Your task to perform on an android device: show emergency info Image 0: 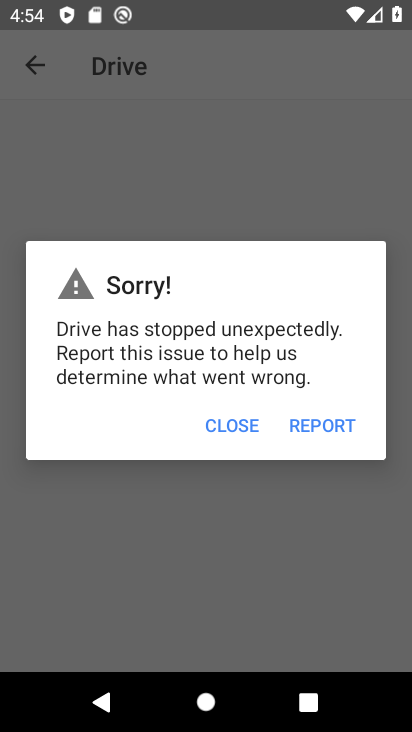
Step 0: press home button
Your task to perform on an android device: show emergency info Image 1: 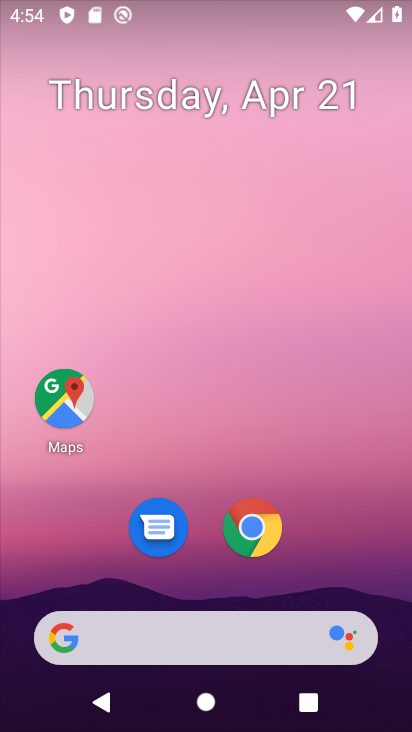
Step 1: click (372, 141)
Your task to perform on an android device: show emergency info Image 2: 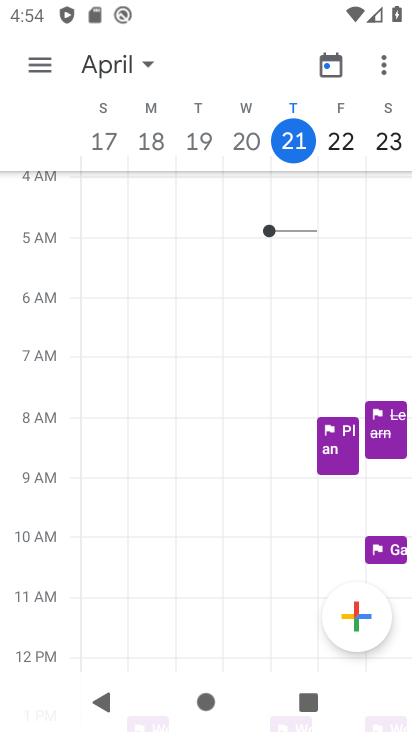
Step 2: press home button
Your task to perform on an android device: show emergency info Image 3: 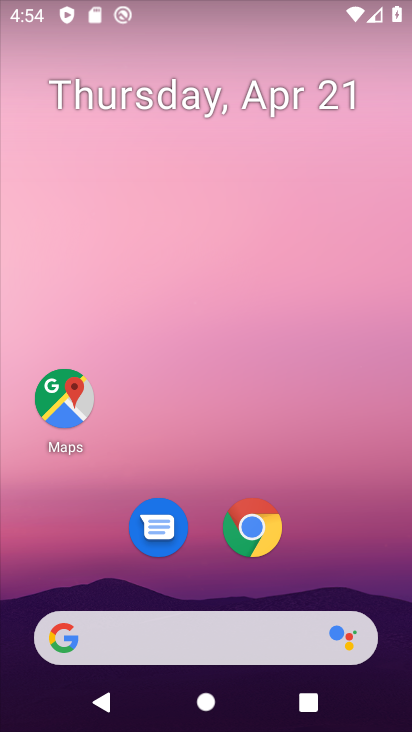
Step 3: drag from (356, 248) to (334, 93)
Your task to perform on an android device: show emergency info Image 4: 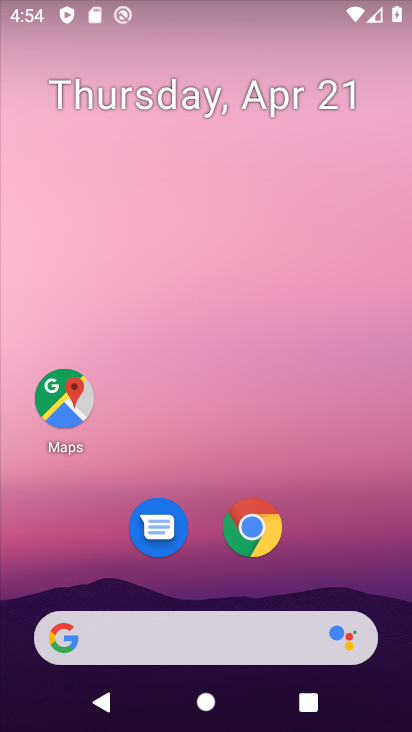
Step 4: drag from (396, 627) to (346, 83)
Your task to perform on an android device: show emergency info Image 5: 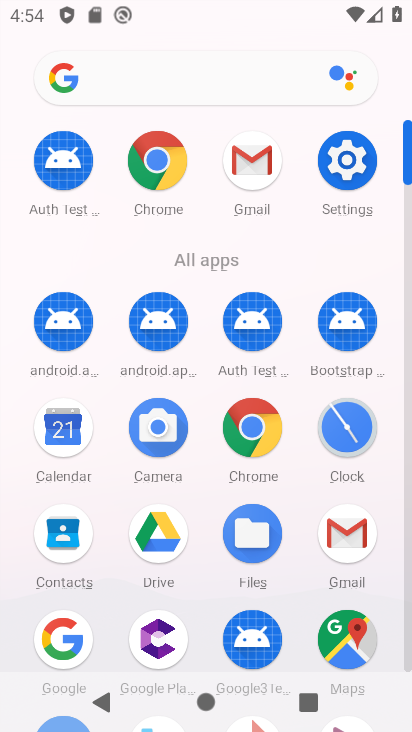
Step 5: click (338, 155)
Your task to perform on an android device: show emergency info Image 6: 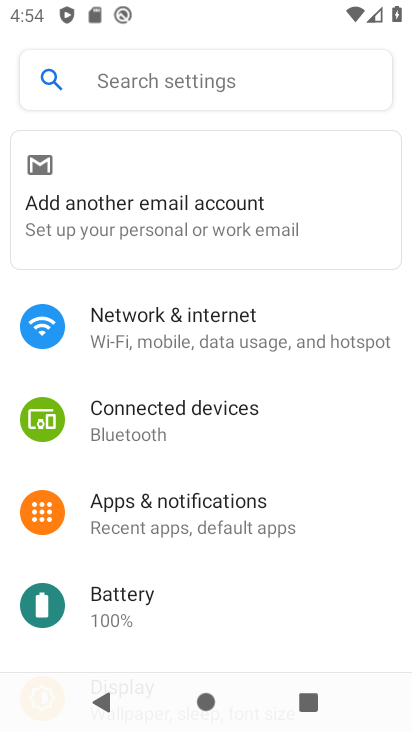
Step 6: drag from (362, 637) to (362, 125)
Your task to perform on an android device: show emergency info Image 7: 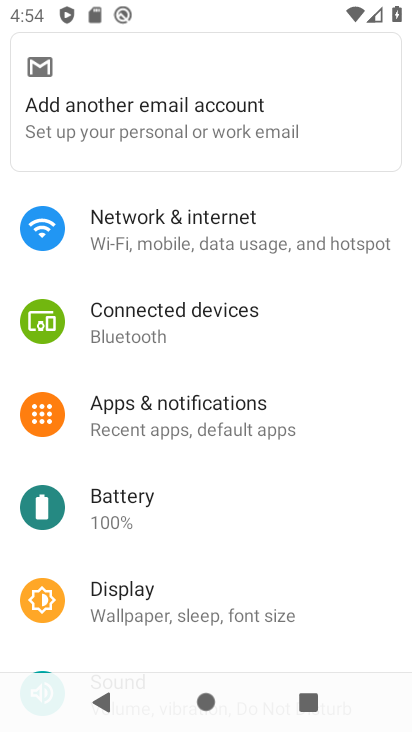
Step 7: drag from (359, 415) to (357, 232)
Your task to perform on an android device: show emergency info Image 8: 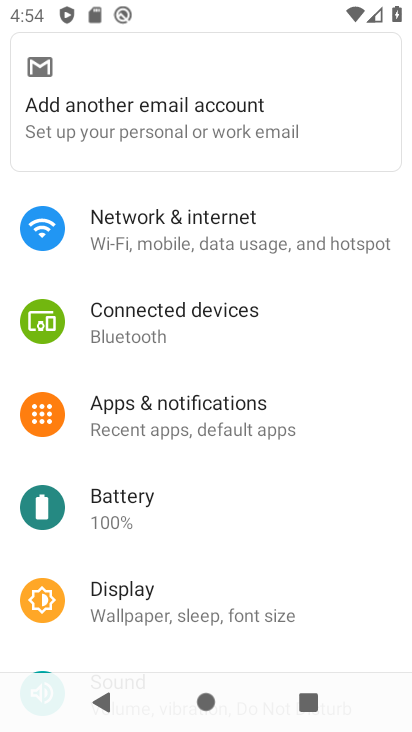
Step 8: drag from (365, 531) to (351, 235)
Your task to perform on an android device: show emergency info Image 9: 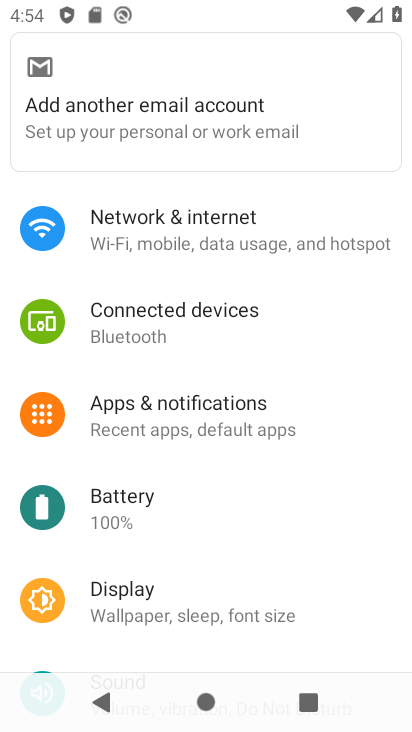
Step 9: drag from (347, 651) to (358, 257)
Your task to perform on an android device: show emergency info Image 10: 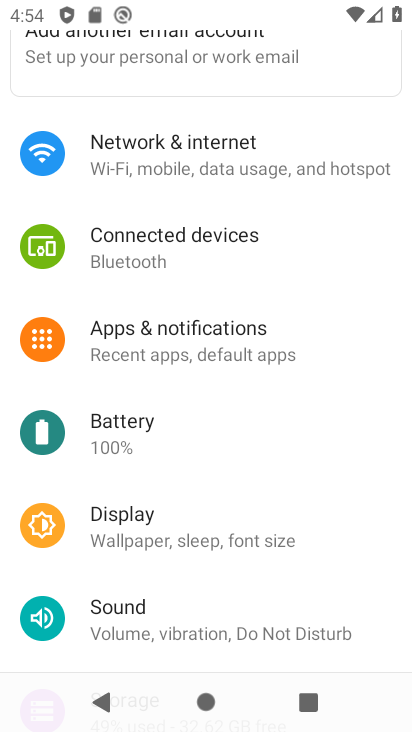
Step 10: drag from (362, 617) to (359, 328)
Your task to perform on an android device: show emergency info Image 11: 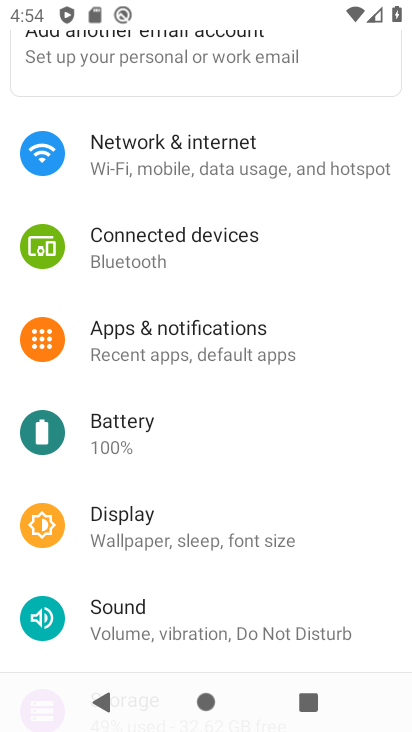
Step 11: drag from (361, 595) to (345, 270)
Your task to perform on an android device: show emergency info Image 12: 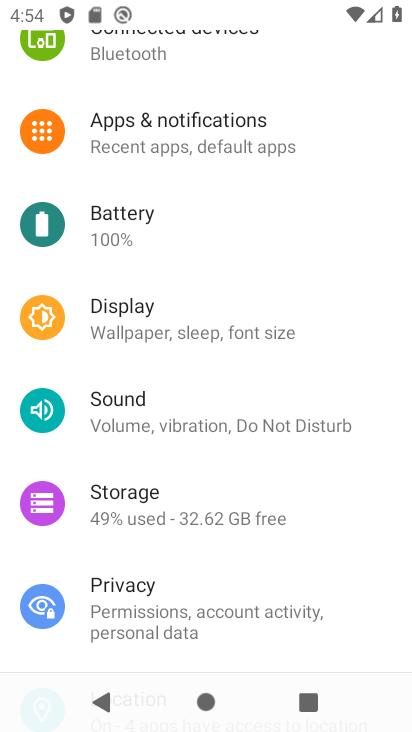
Step 12: drag from (332, 409) to (318, 311)
Your task to perform on an android device: show emergency info Image 13: 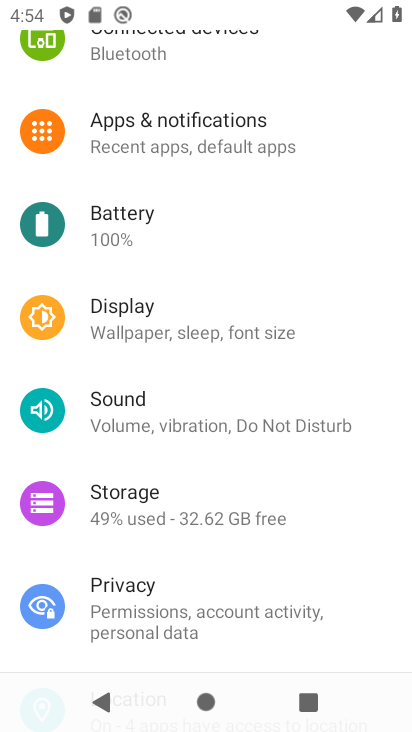
Step 13: drag from (374, 466) to (371, 153)
Your task to perform on an android device: show emergency info Image 14: 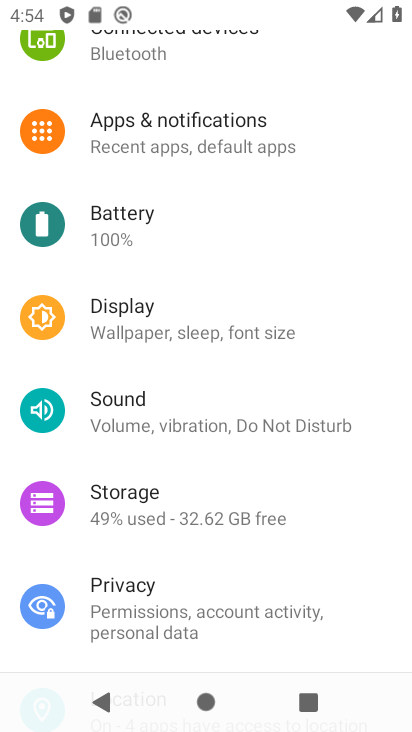
Step 14: drag from (355, 617) to (339, 219)
Your task to perform on an android device: show emergency info Image 15: 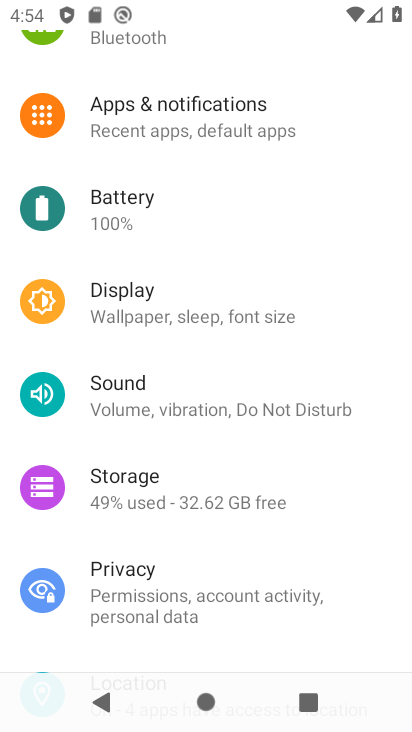
Step 15: drag from (380, 630) to (376, 303)
Your task to perform on an android device: show emergency info Image 16: 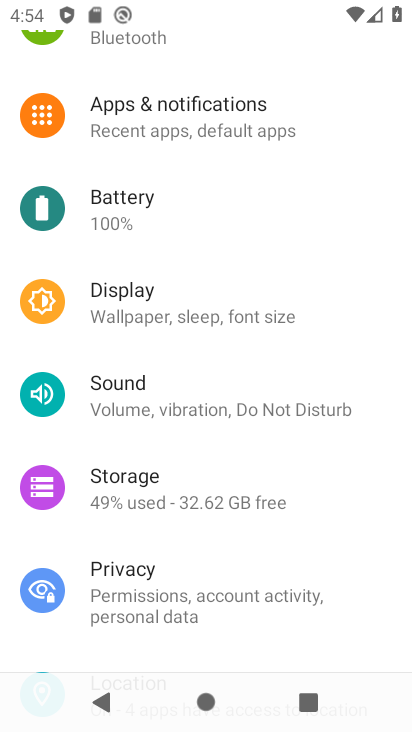
Step 16: drag from (365, 633) to (377, 214)
Your task to perform on an android device: show emergency info Image 17: 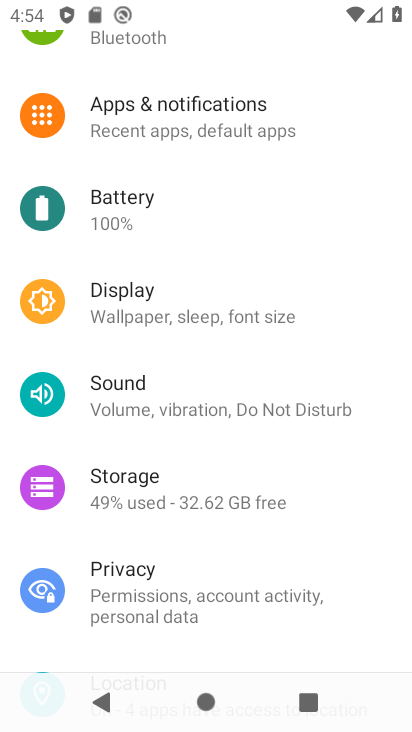
Step 17: drag from (352, 309) to (343, 95)
Your task to perform on an android device: show emergency info Image 18: 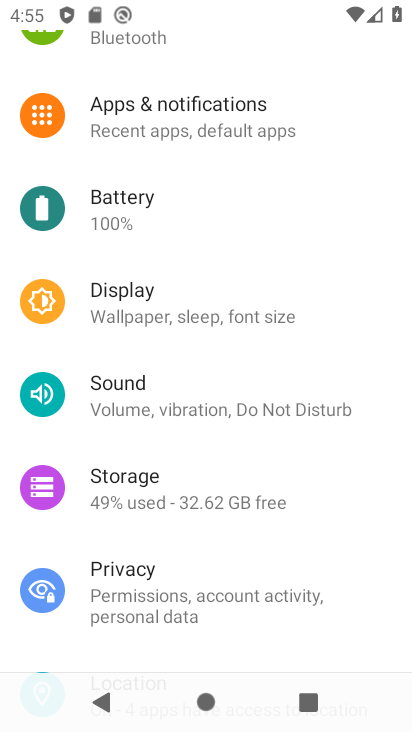
Step 18: drag from (372, 386) to (360, 250)
Your task to perform on an android device: show emergency info Image 19: 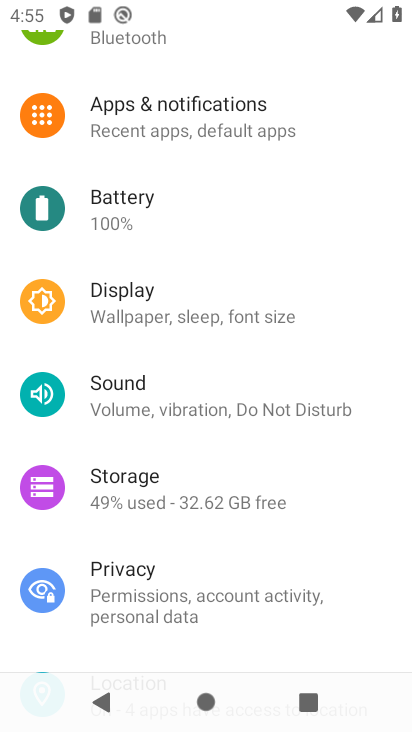
Step 19: drag from (375, 320) to (359, 148)
Your task to perform on an android device: show emergency info Image 20: 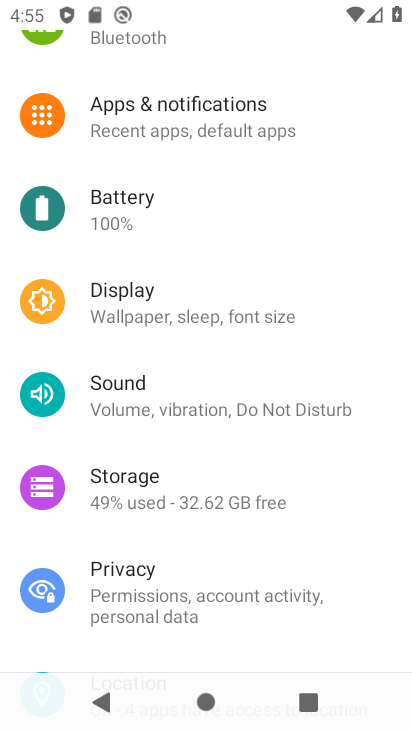
Step 20: click (368, 214)
Your task to perform on an android device: show emergency info Image 21: 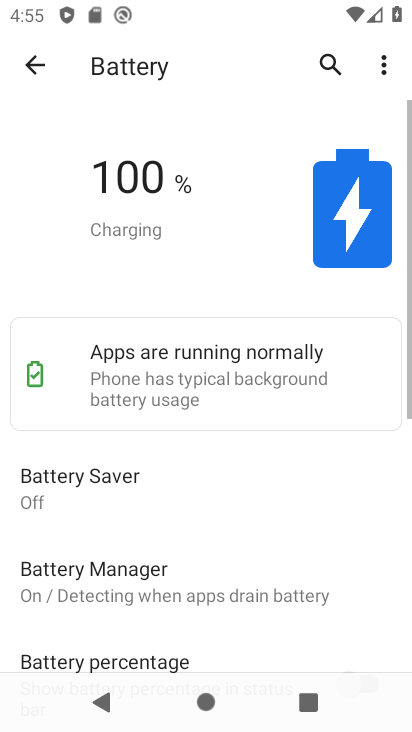
Step 21: drag from (375, 308) to (368, 154)
Your task to perform on an android device: show emergency info Image 22: 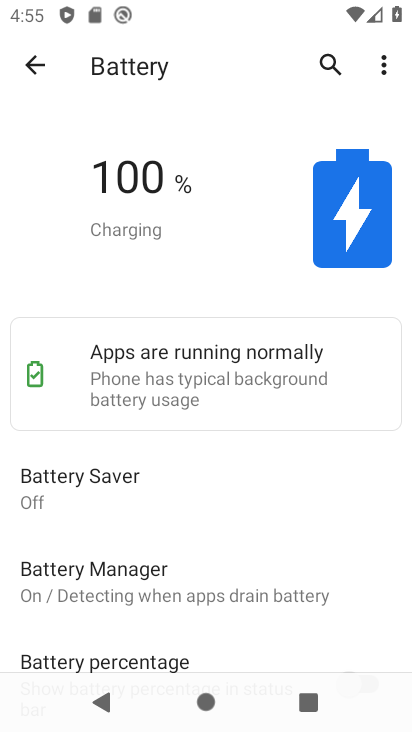
Step 22: click (27, 63)
Your task to perform on an android device: show emergency info Image 23: 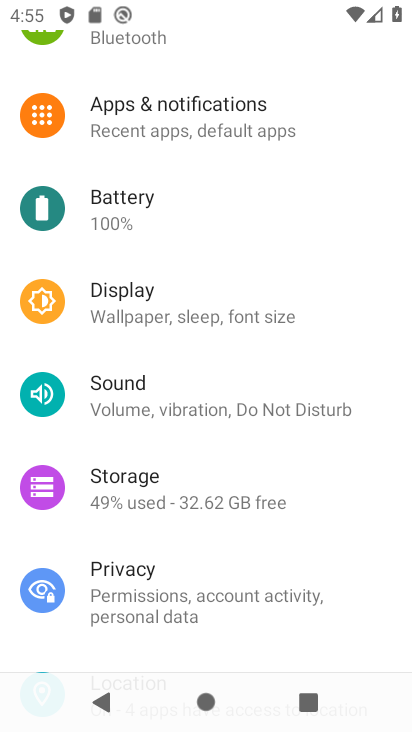
Step 23: drag from (348, 617) to (309, 205)
Your task to perform on an android device: show emergency info Image 24: 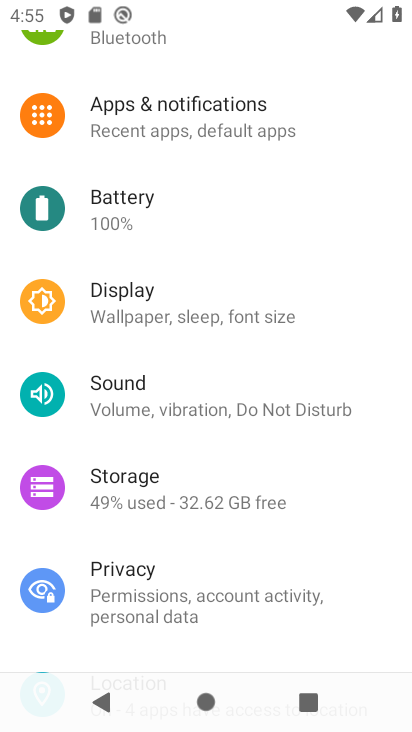
Step 24: drag from (357, 590) to (355, 113)
Your task to perform on an android device: show emergency info Image 25: 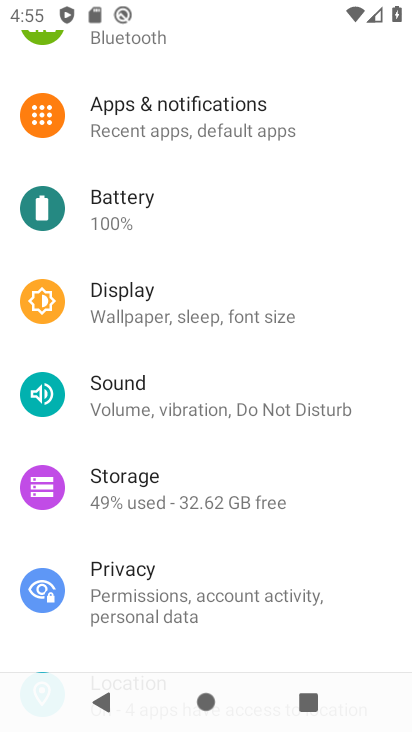
Step 25: drag from (380, 644) to (337, 55)
Your task to perform on an android device: show emergency info Image 26: 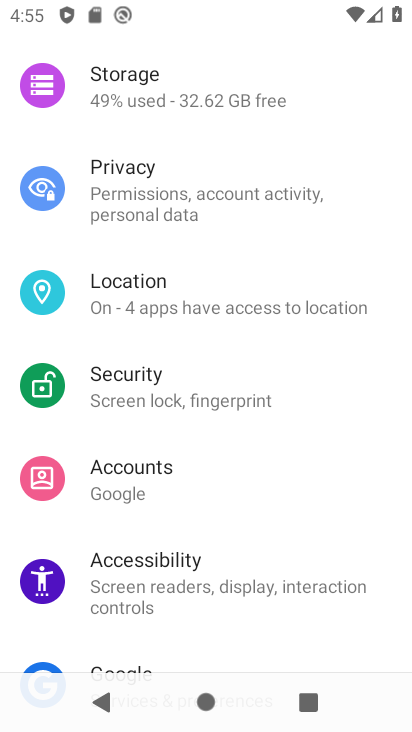
Step 26: drag from (367, 637) to (360, 211)
Your task to perform on an android device: show emergency info Image 27: 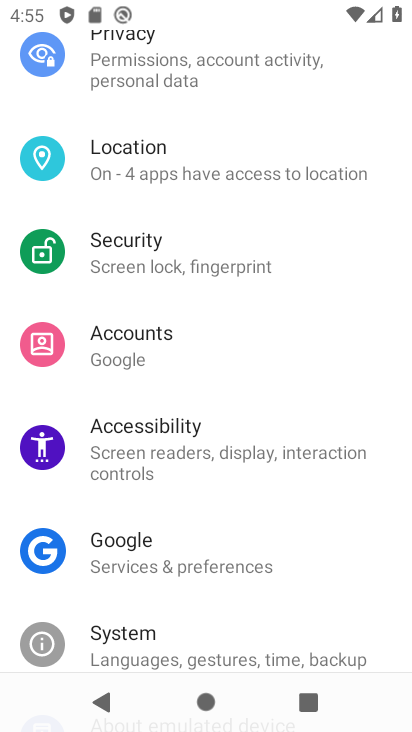
Step 27: drag from (387, 644) to (405, 140)
Your task to perform on an android device: show emergency info Image 28: 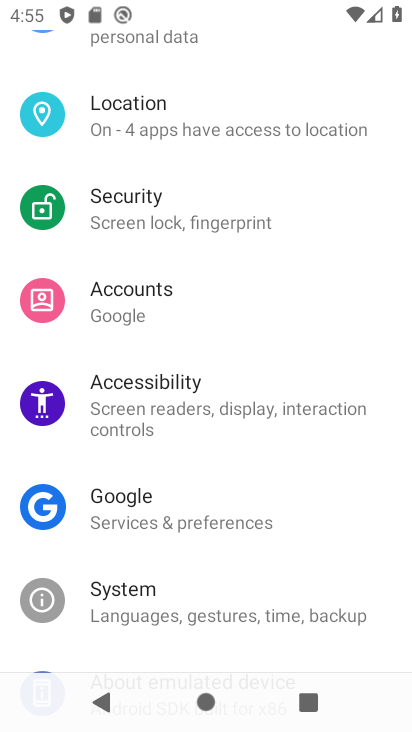
Step 28: drag from (374, 608) to (369, 199)
Your task to perform on an android device: show emergency info Image 29: 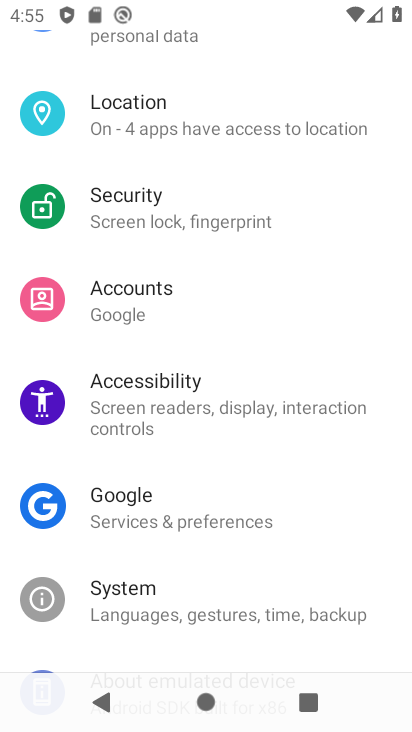
Step 29: drag from (373, 599) to (384, 181)
Your task to perform on an android device: show emergency info Image 30: 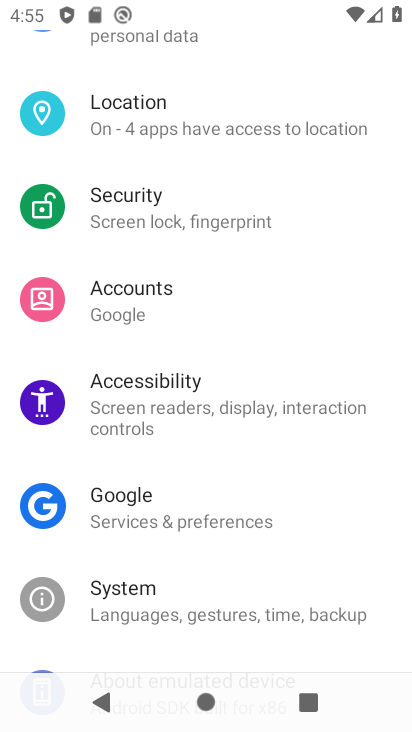
Step 30: drag from (395, 650) to (411, 152)
Your task to perform on an android device: show emergency info Image 31: 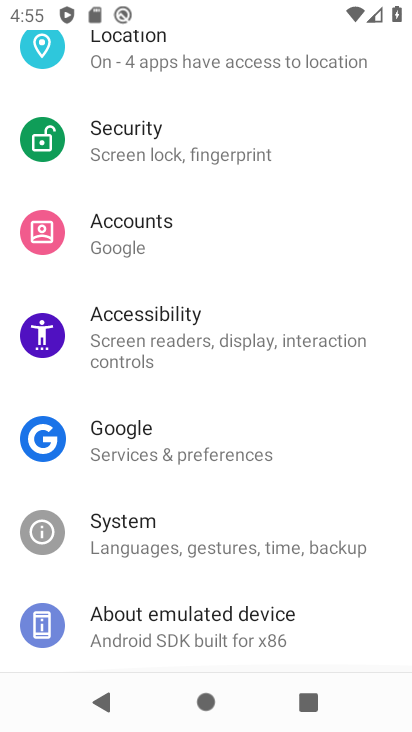
Step 31: drag from (375, 651) to (362, 259)
Your task to perform on an android device: show emergency info Image 32: 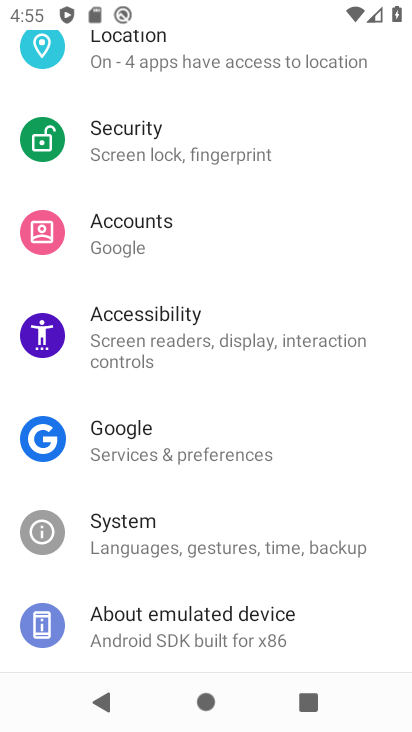
Step 32: click (143, 629)
Your task to perform on an android device: show emergency info Image 33: 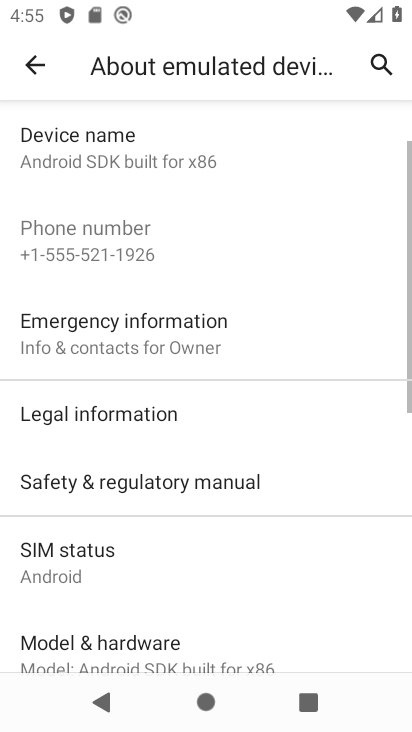
Step 33: click (111, 325)
Your task to perform on an android device: show emergency info Image 34: 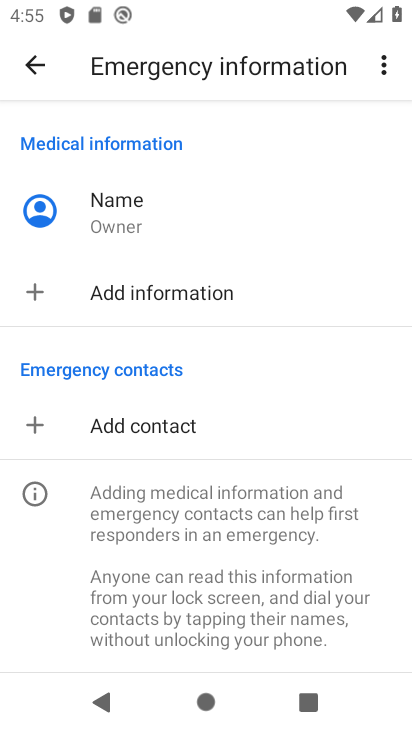
Step 34: task complete